Your task to perform on an android device: Clear the cart on target.com. Add macbook to the cart on target.com, then select checkout. Image 0: 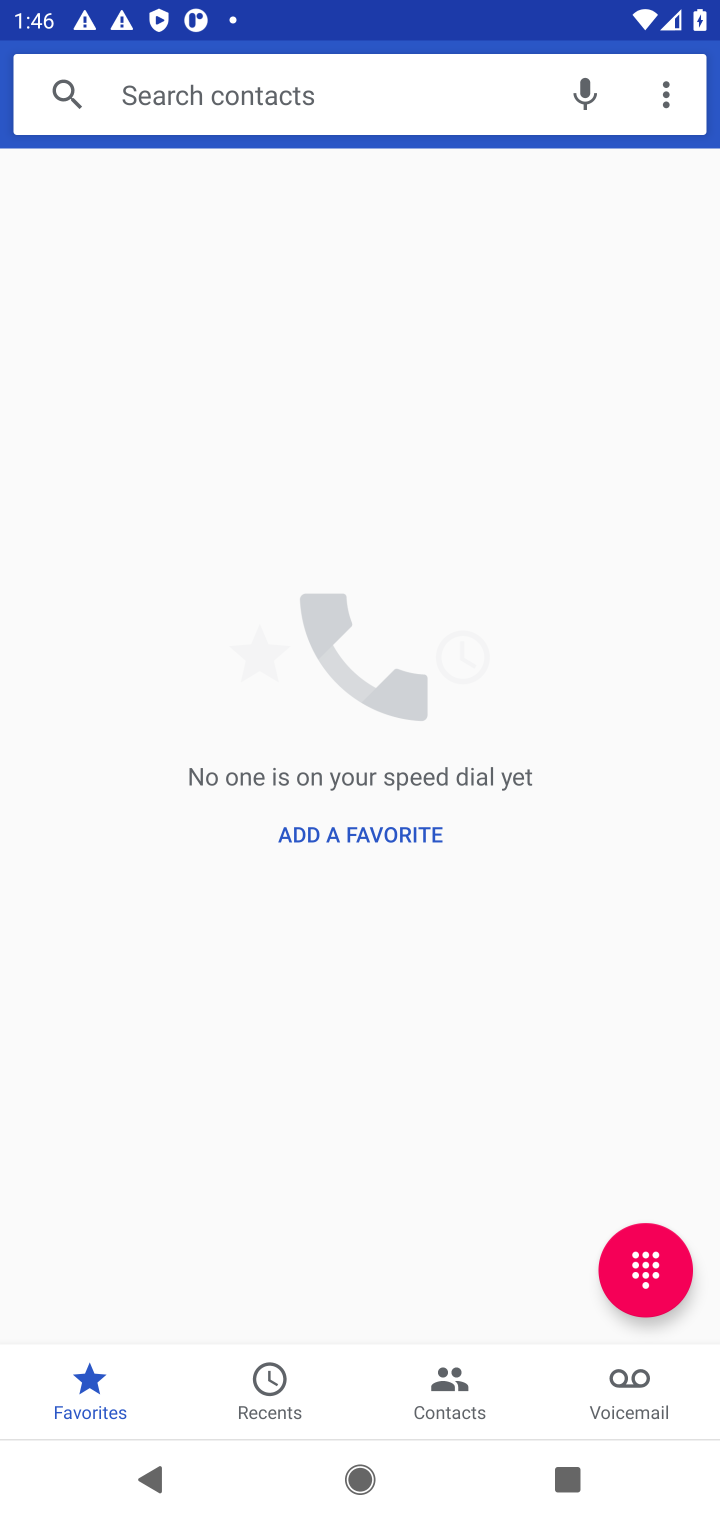
Step 0: press home button
Your task to perform on an android device: Clear the cart on target.com. Add macbook to the cart on target.com, then select checkout. Image 1: 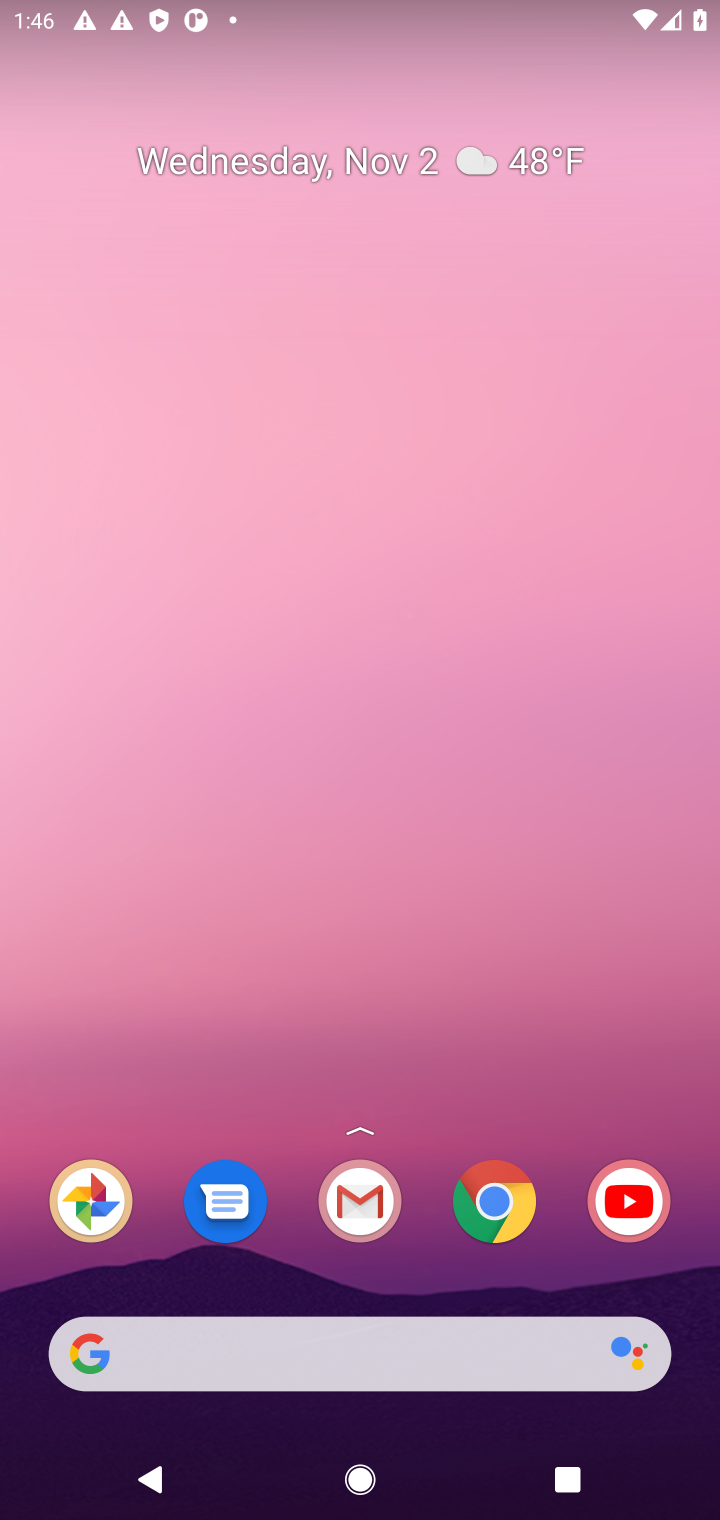
Step 1: click (488, 1207)
Your task to perform on an android device: Clear the cart on target.com. Add macbook to the cart on target.com, then select checkout. Image 2: 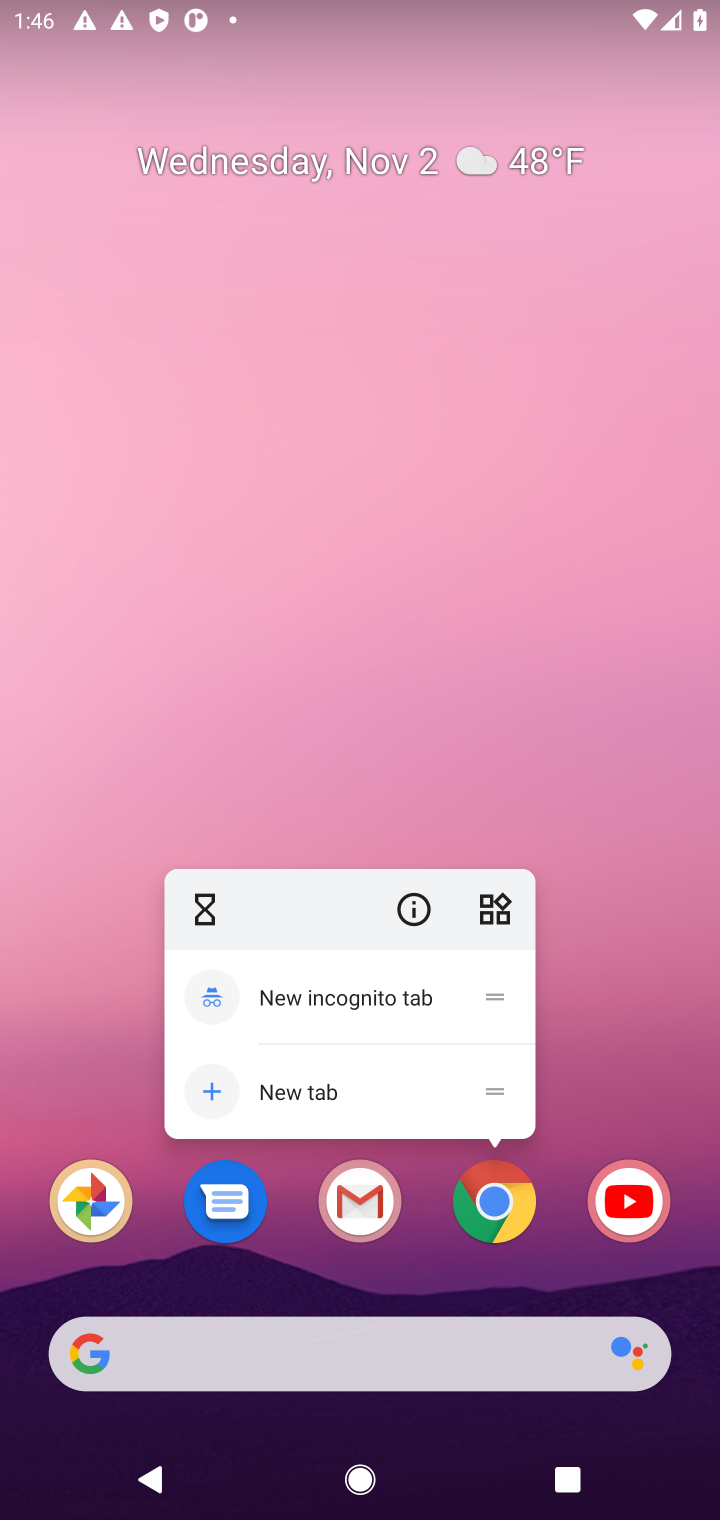
Step 2: click (488, 1207)
Your task to perform on an android device: Clear the cart on target.com. Add macbook to the cart on target.com, then select checkout. Image 3: 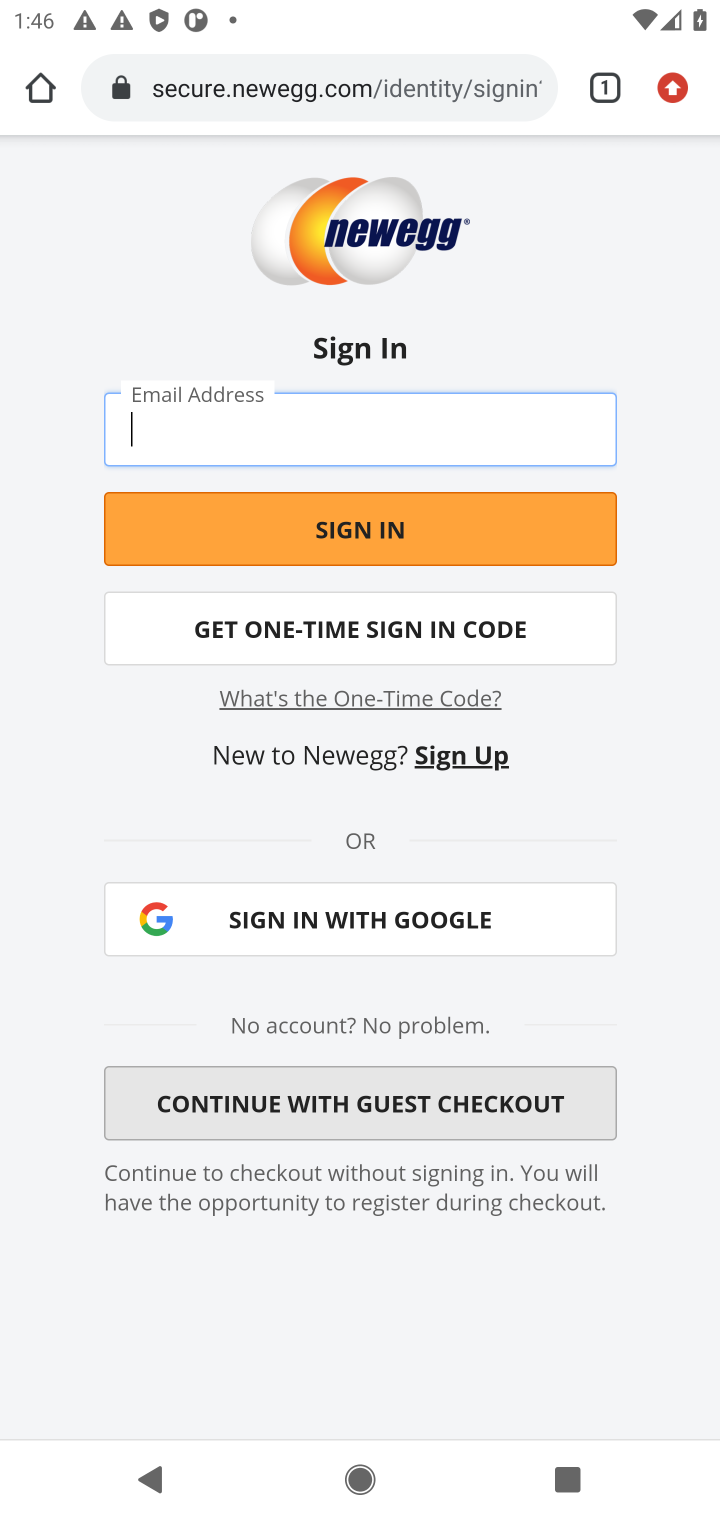
Step 3: click (462, 93)
Your task to perform on an android device: Clear the cart on target.com. Add macbook to the cart on target.com, then select checkout. Image 4: 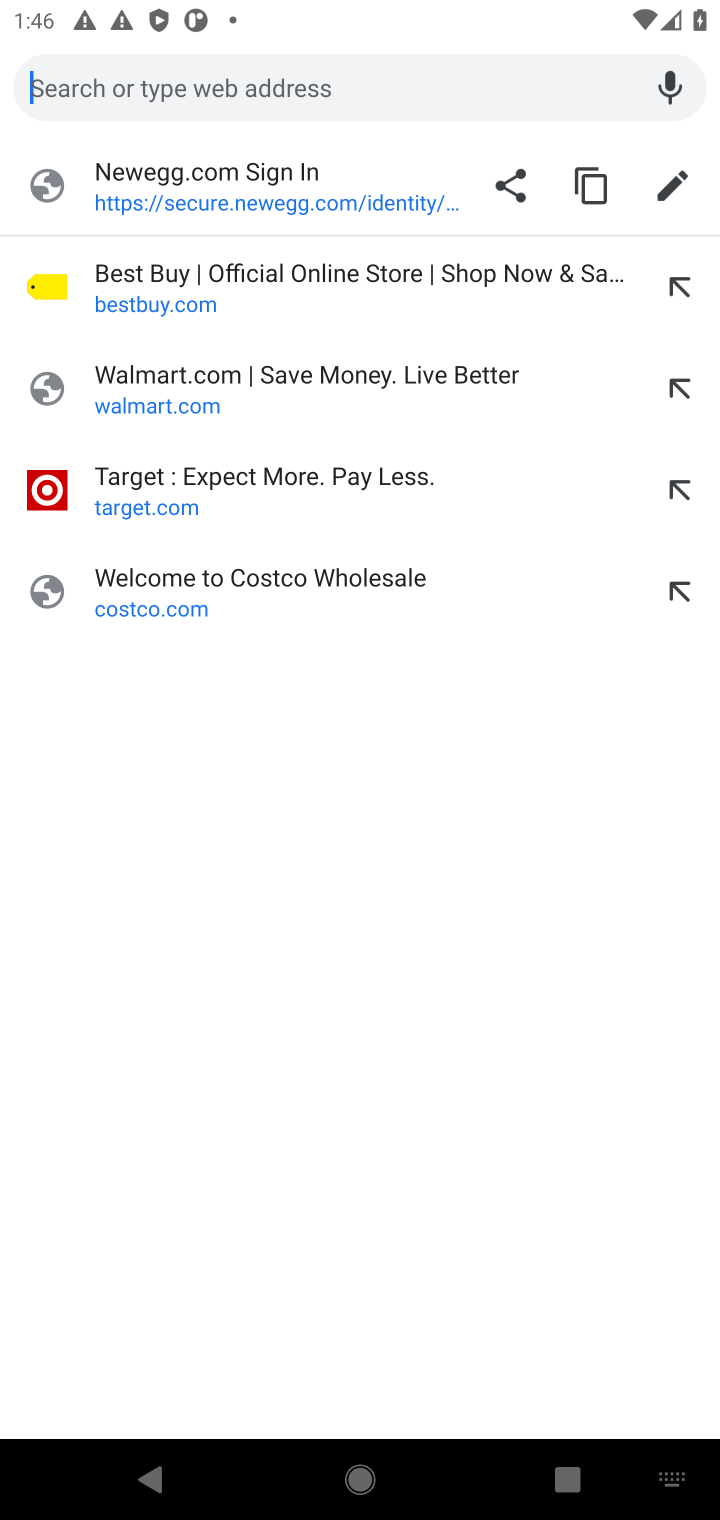
Step 4: click (235, 472)
Your task to perform on an android device: Clear the cart on target.com. Add macbook to the cart on target.com, then select checkout. Image 5: 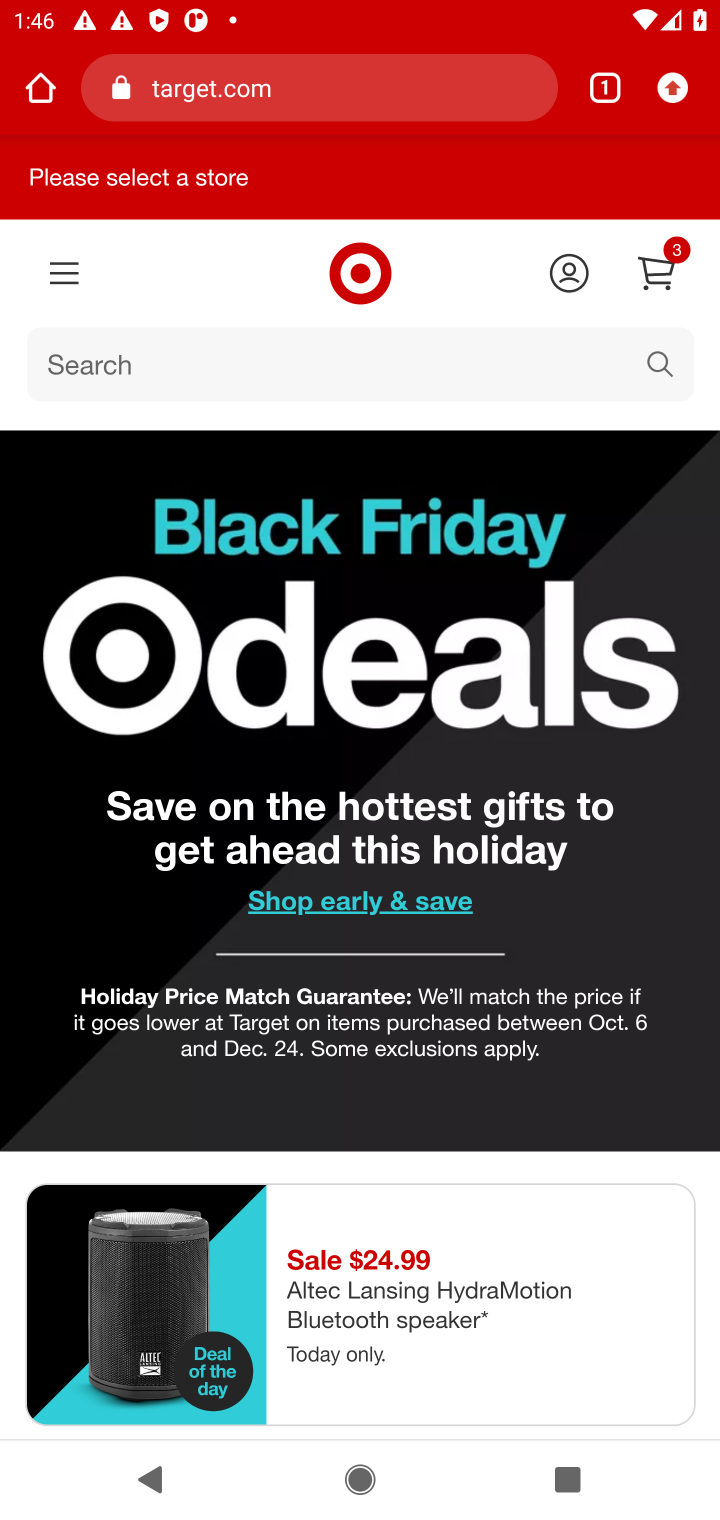
Step 5: click (660, 277)
Your task to perform on an android device: Clear the cart on target.com. Add macbook to the cart on target.com, then select checkout. Image 6: 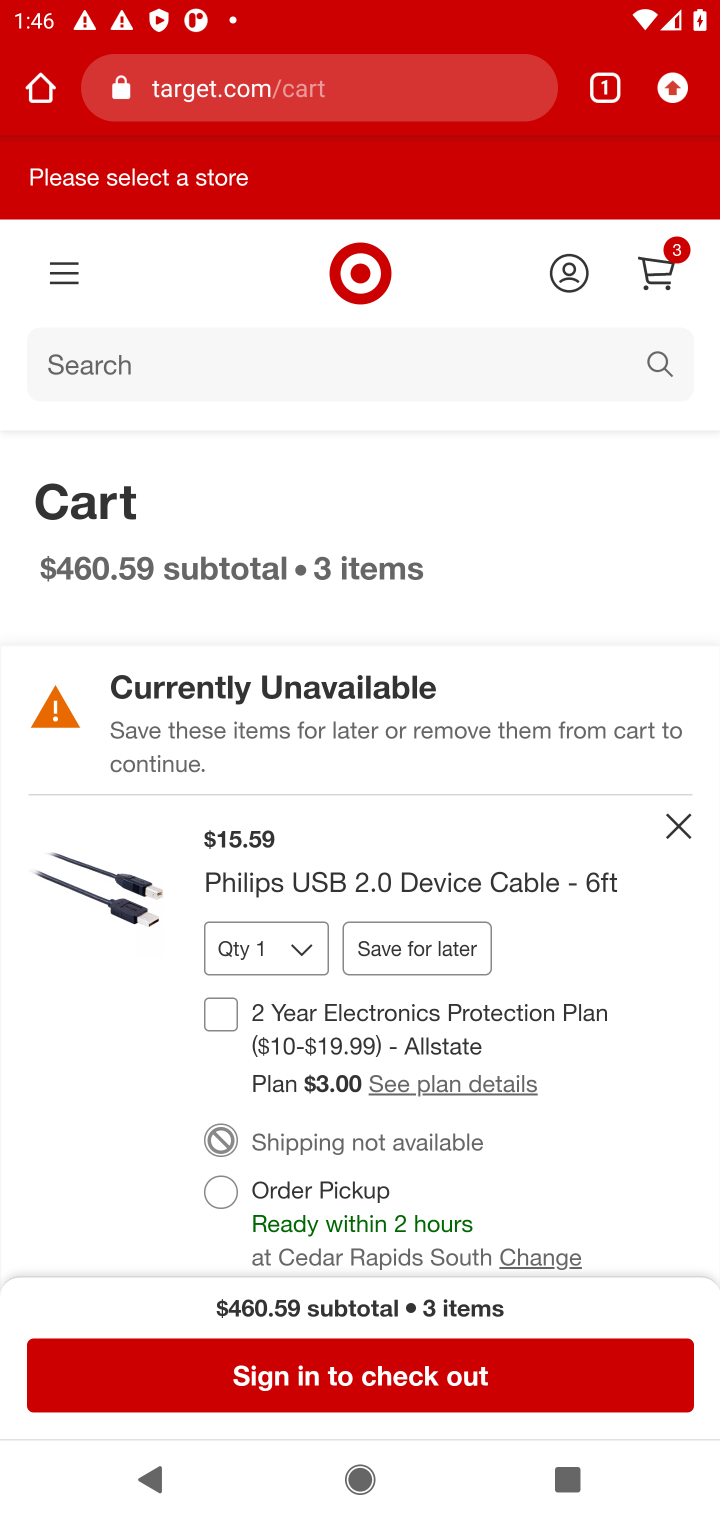
Step 6: click (676, 820)
Your task to perform on an android device: Clear the cart on target.com. Add macbook to the cart on target.com, then select checkout. Image 7: 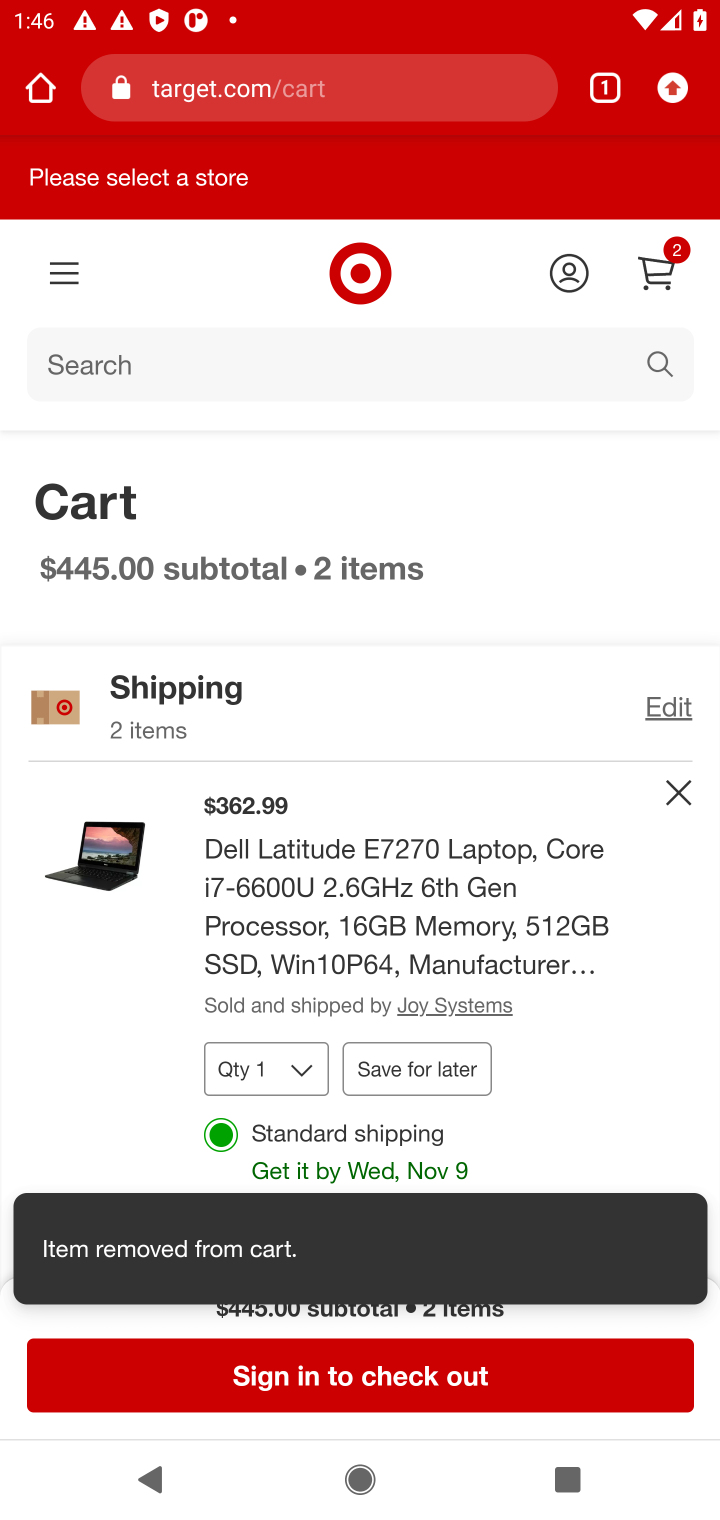
Step 7: click (673, 779)
Your task to perform on an android device: Clear the cart on target.com. Add macbook to the cart on target.com, then select checkout. Image 8: 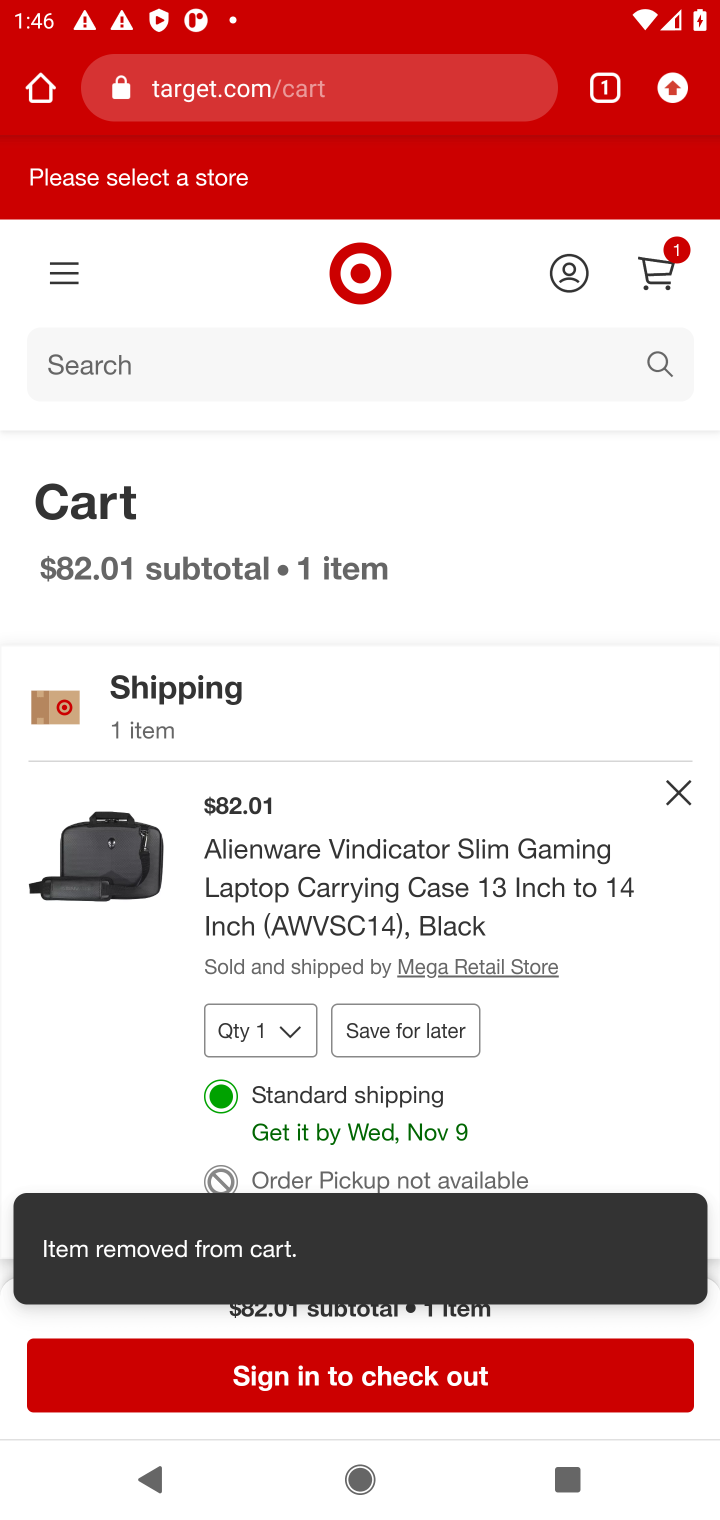
Step 8: click (673, 779)
Your task to perform on an android device: Clear the cart on target.com. Add macbook to the cart on target.com, then select checkout. Image 9: 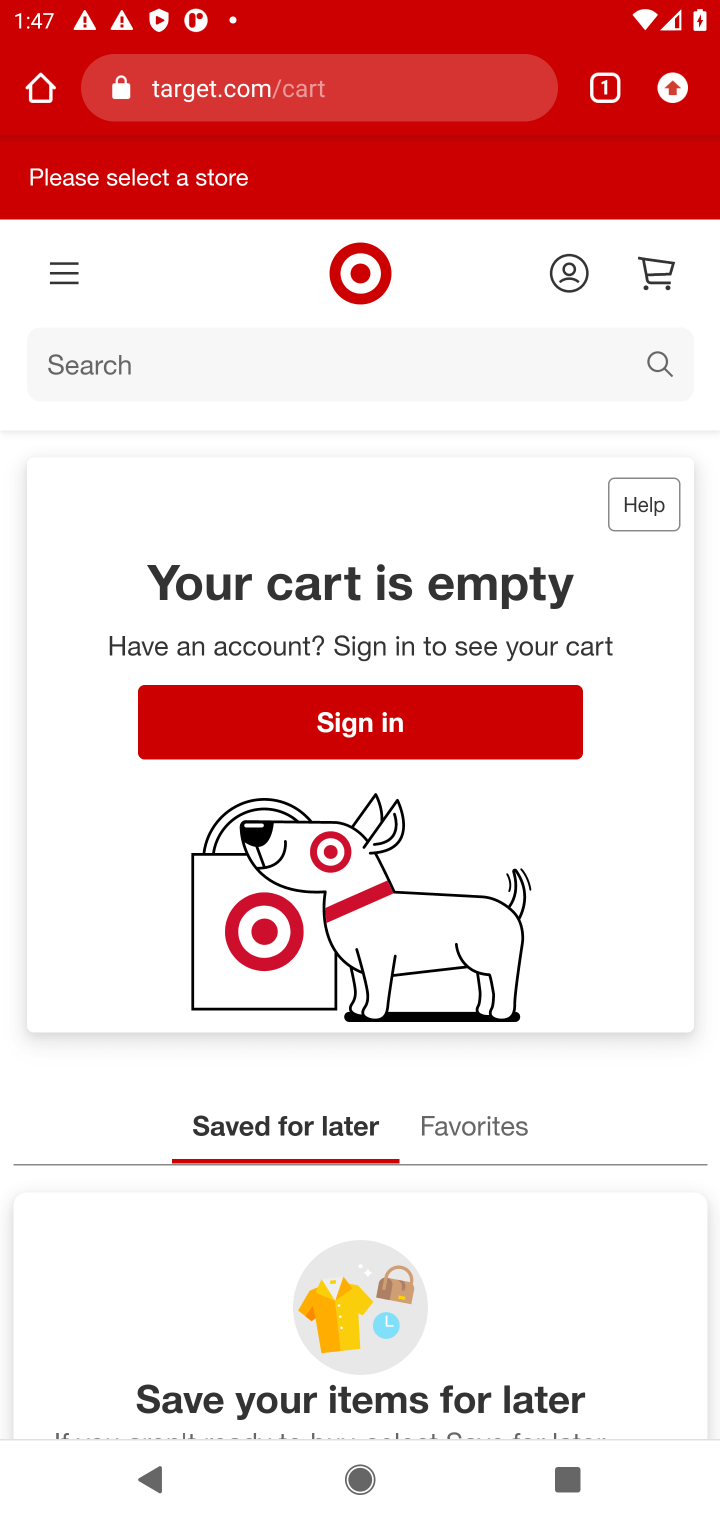
Step 9: click (645, 356)
Your task to perform on an android device: Clear the cart on target.com. Add macbook to the cart on target.com, then select checkout. Image 10: 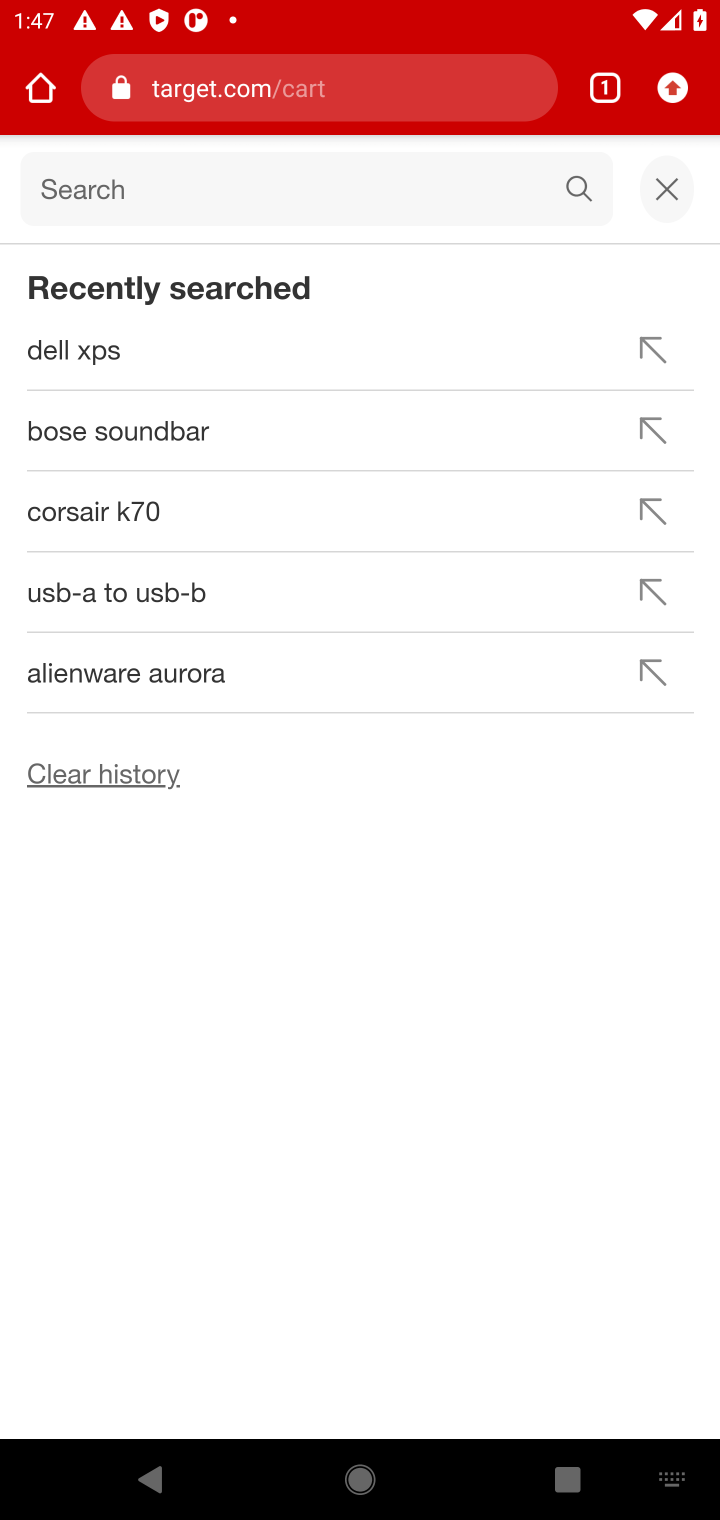
Step 10: type "macbook"
Your task to perform on an android device: Clear the cart on target.com. Add macbook to the cart on target.com, then select checkout. Image 11: 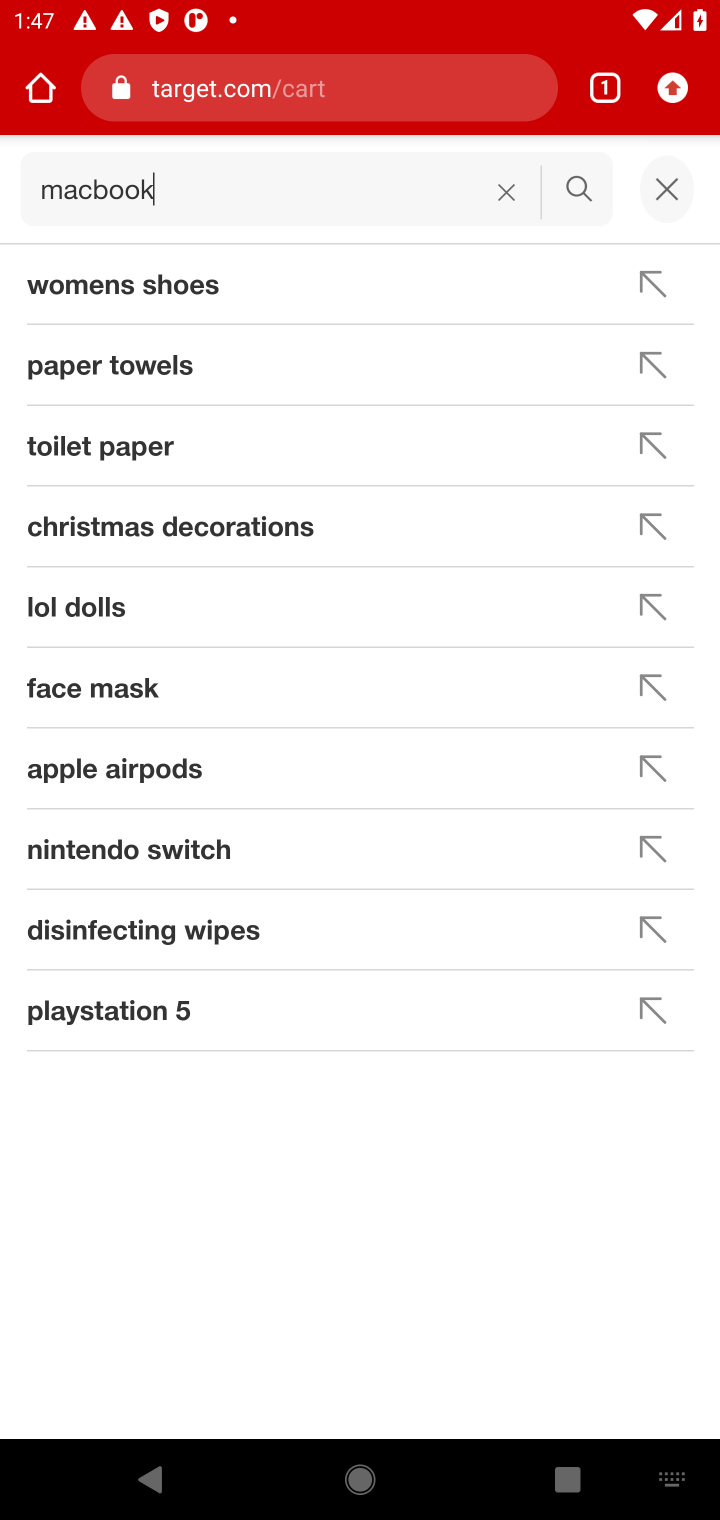
Step 11: press enter
Your task to perform on an android device: Clear the cart on target.com. Add macbook to the cart on target.com, then select checkout. Image 12: 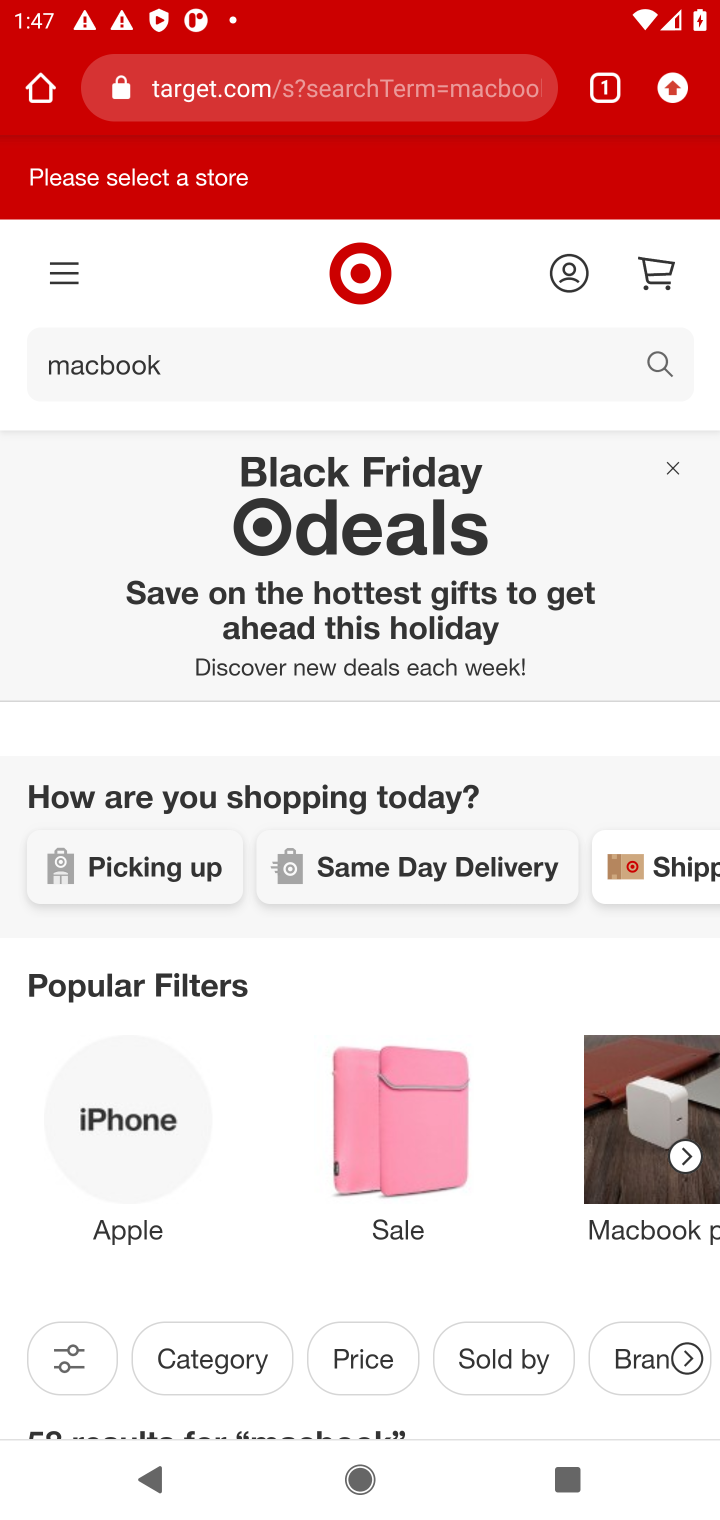
Step 12: drag from (488, 1088) to (544, 673)
Your task to perform on an android device: Clear the cart on target.com. Add macbook to the cart on target.com, then select checkout. Image 13: 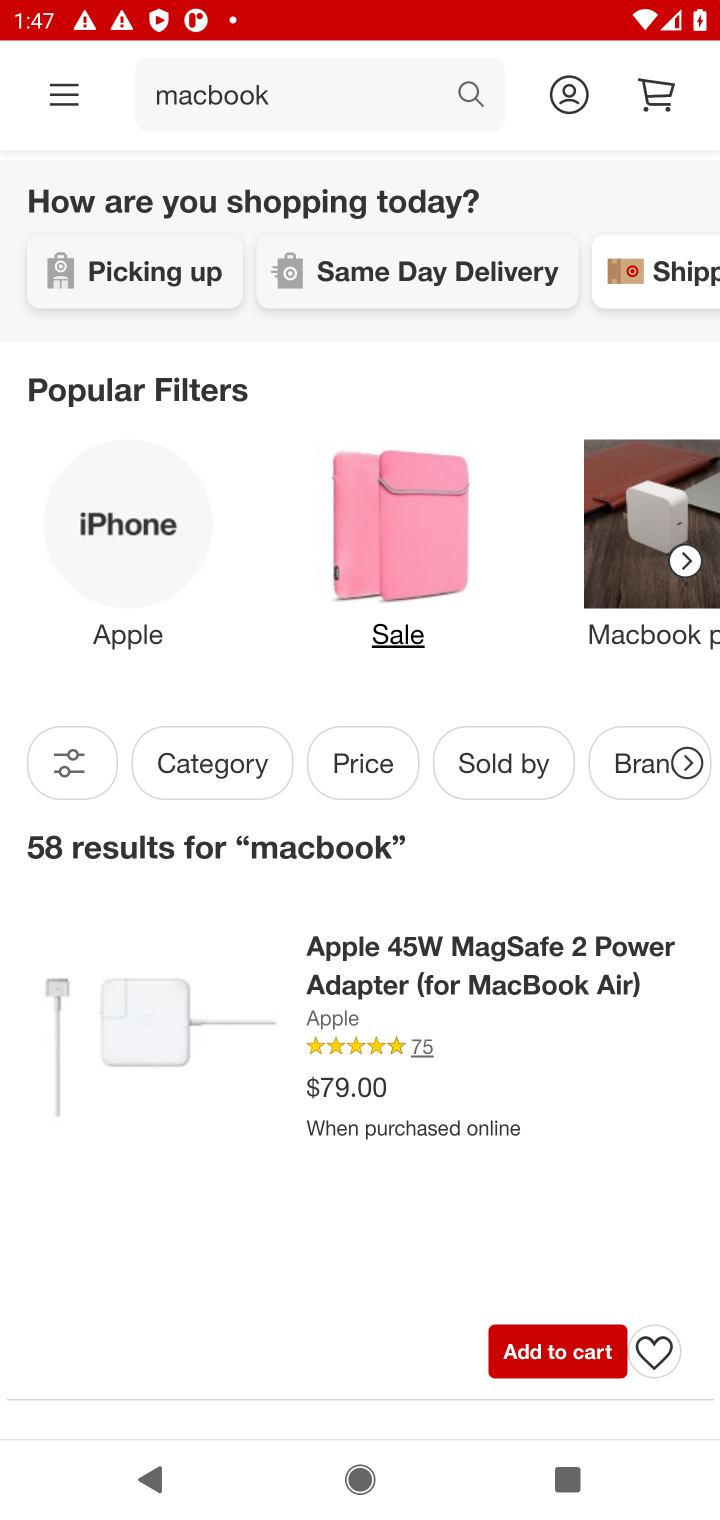
Step 13: click (132, 1009)
Your task to perform on an android device: Clear the cart on target.com. Add macbook to the cart on target.com, then select checkout. Image 14: 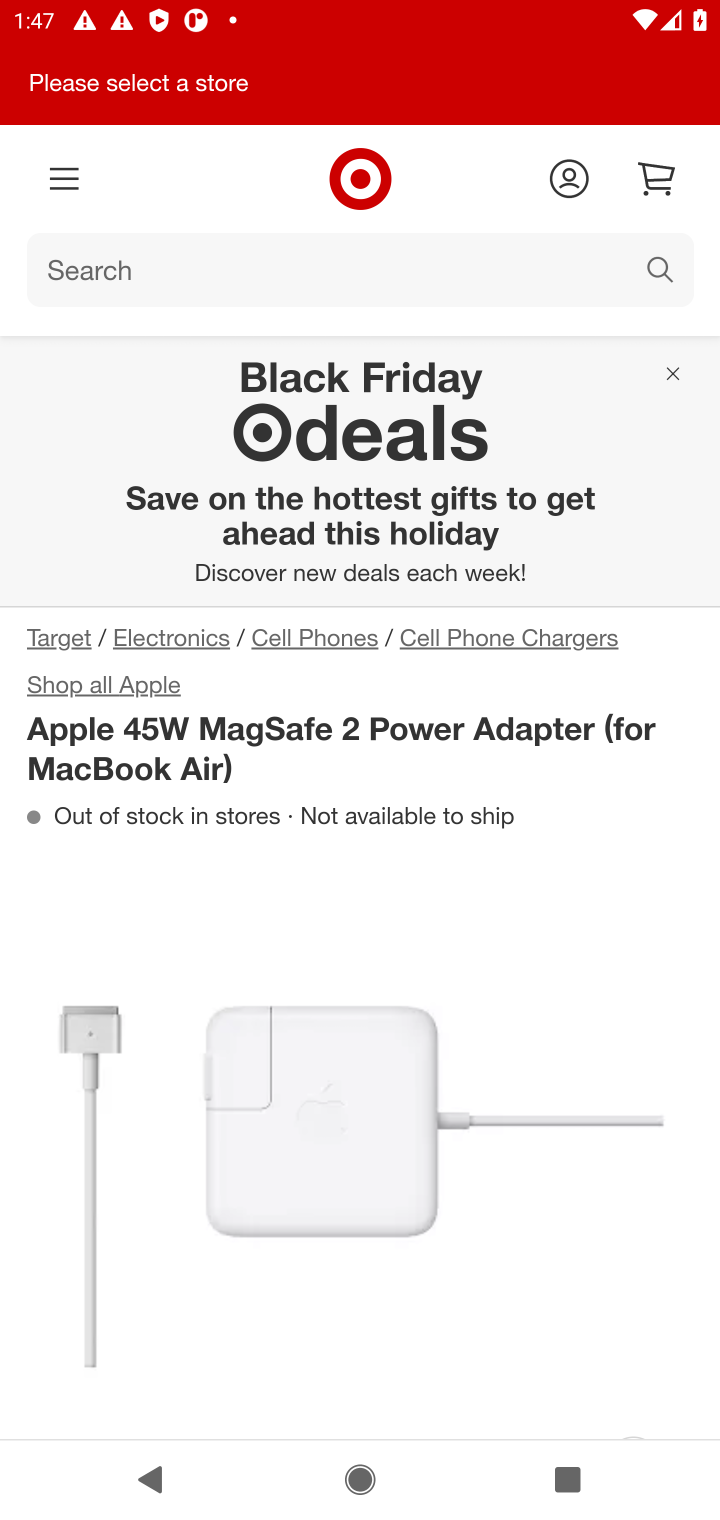
Step 14: drag from (328, 1010) to (480, 604)
Your task to perform on an android device: Clear the cart on target.com. Add macbook to the cart on target.com, then select checkout. Image 15: 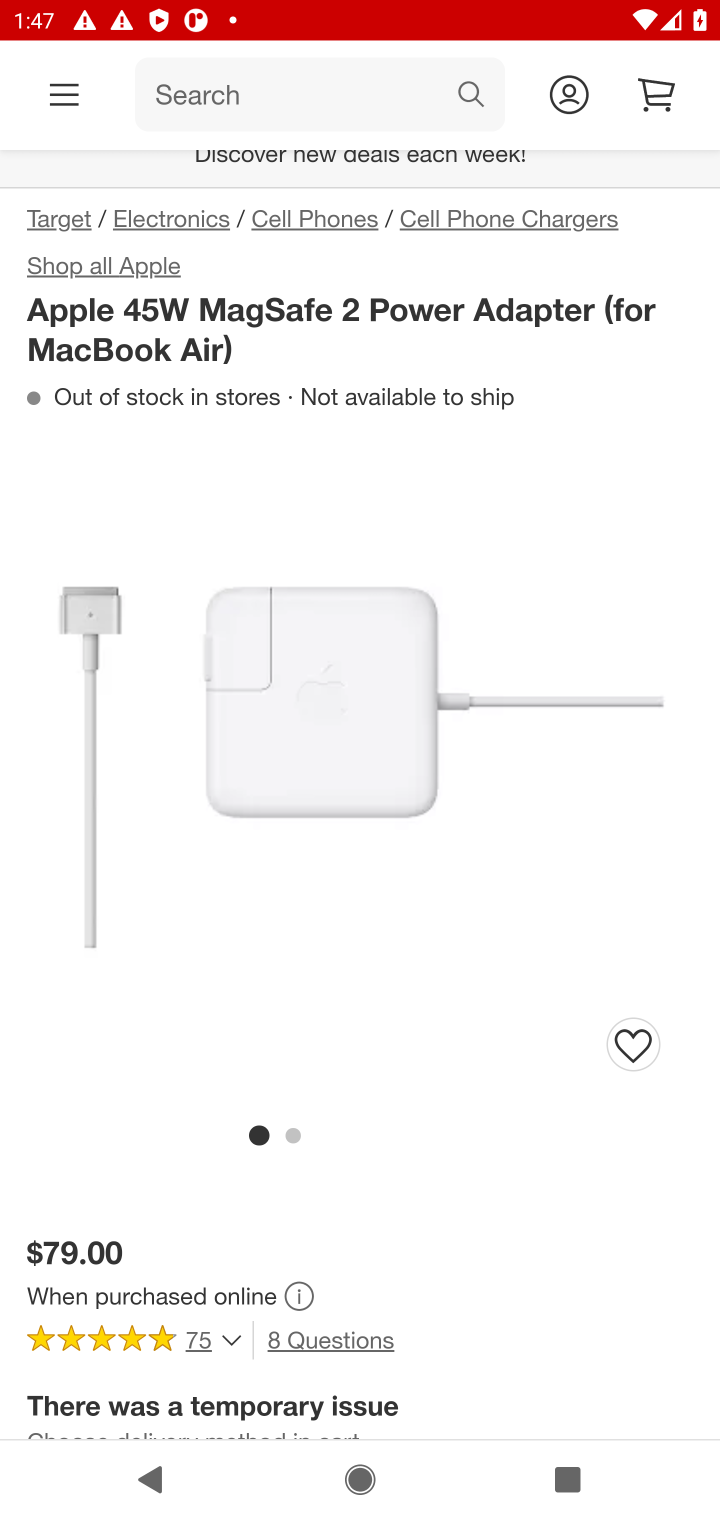
Step 15: drag from (543, 1190) to (544, 749)
Your task to perform on an android device: Clear the cart on target.com. Add macbook to the cart on target.com, then select checkout. Image 16: 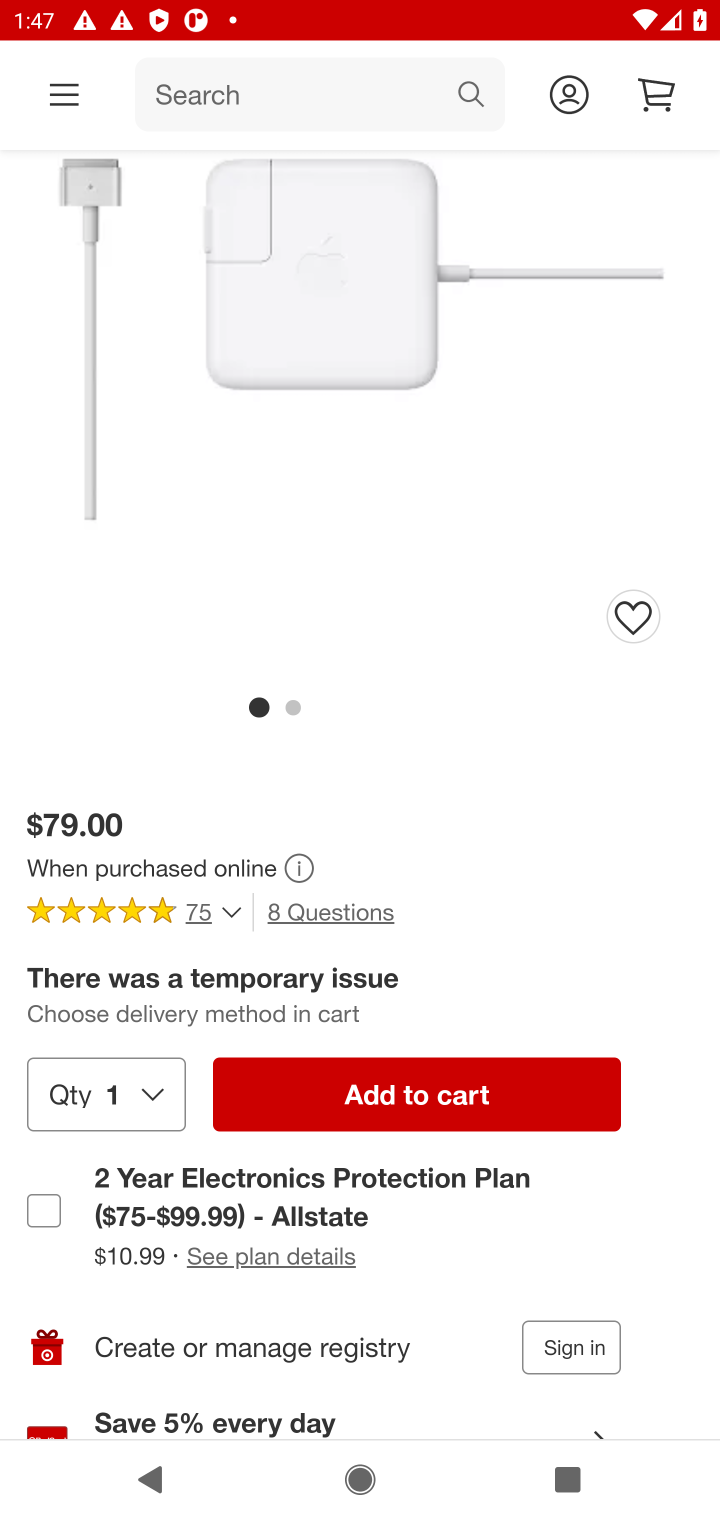
Step 16: click (509, 1084)
Your task to perform on an android device: Clear the cart on target.com. Add macbook to the cart on target.com, then select checkout. Image 17: 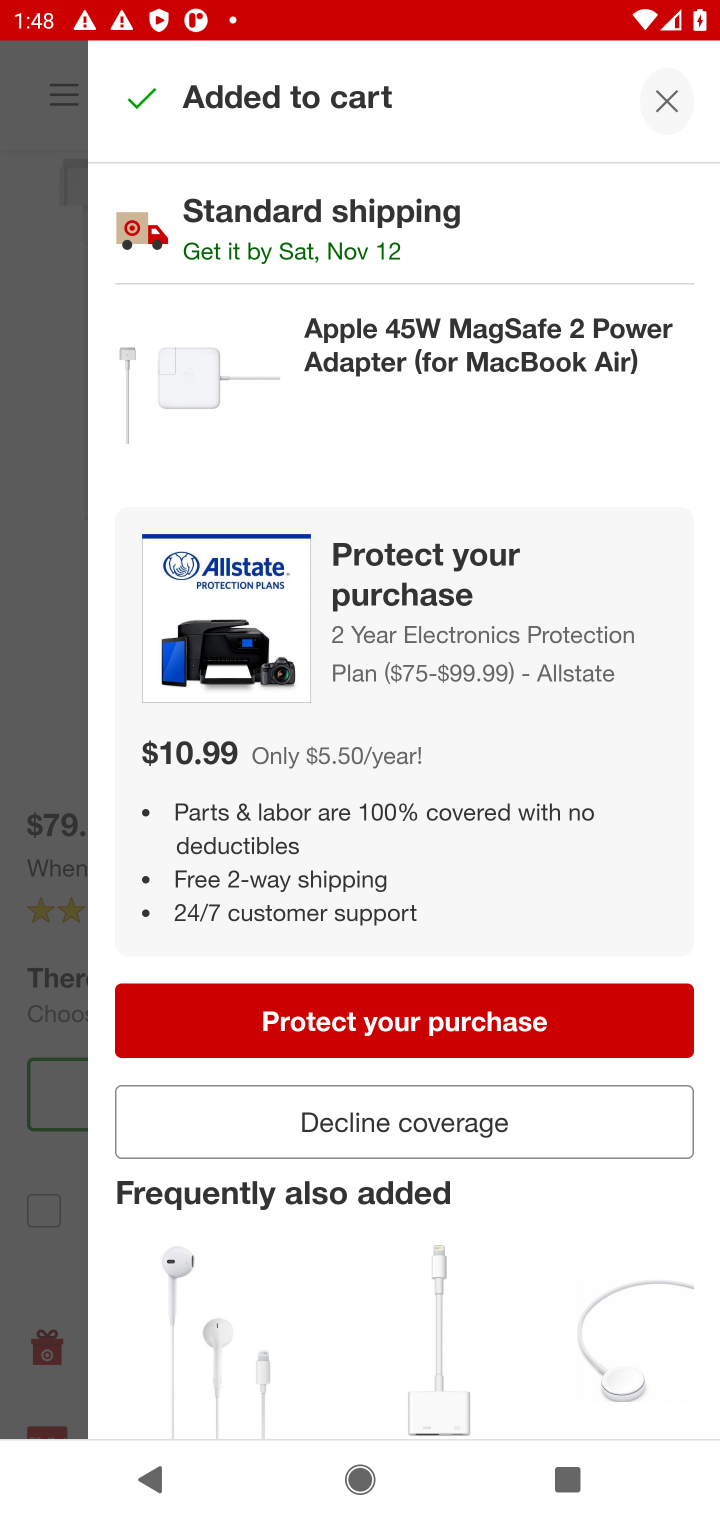
Step 17: click (659, 106)
Your task to perform on an android device: Clear the cart on target.com. Add macbook to the cart on target.com, then select checkout. Image 18: 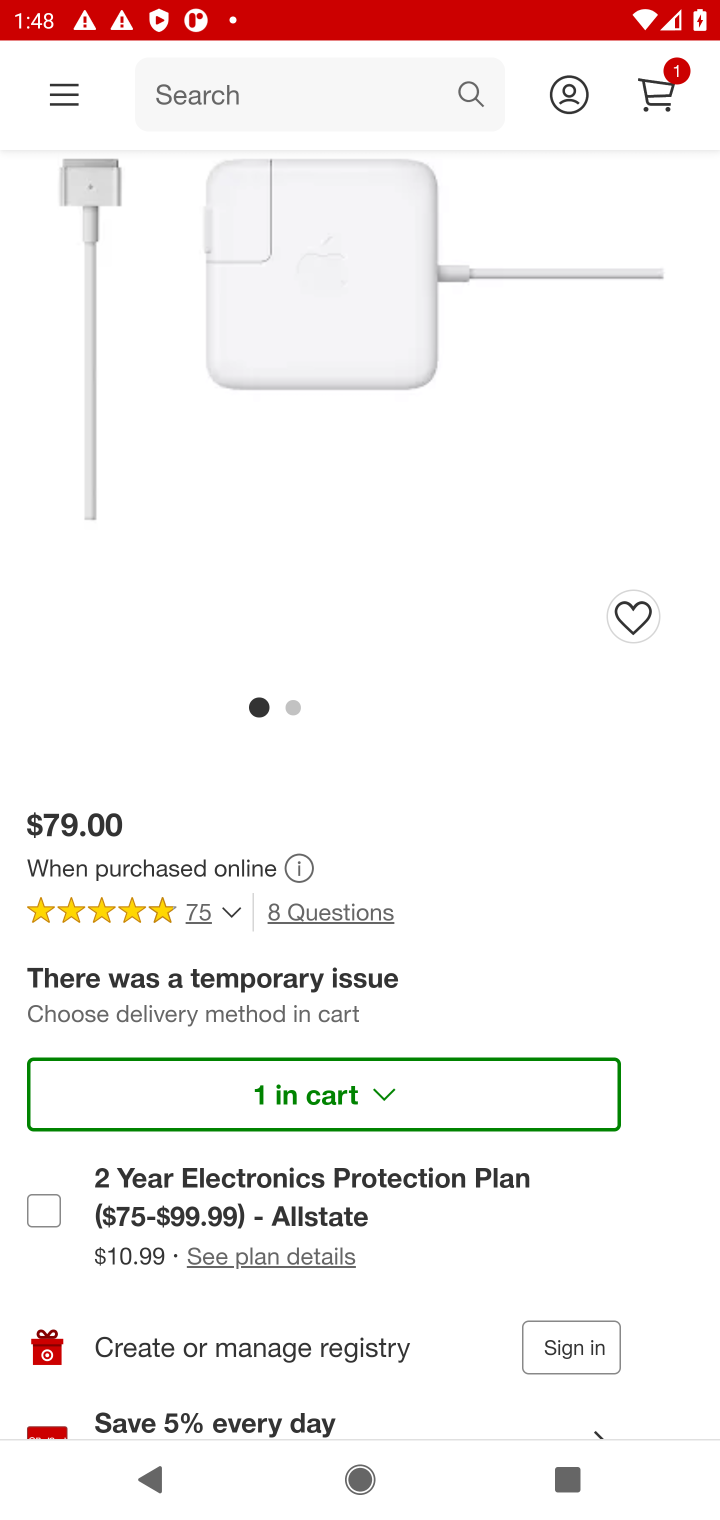
Step 18: click (659, 106)
Your task to perform on an android device: Clear the cart on target.com. Add macbook to the cart on target.com, then select checkout. Image 19: 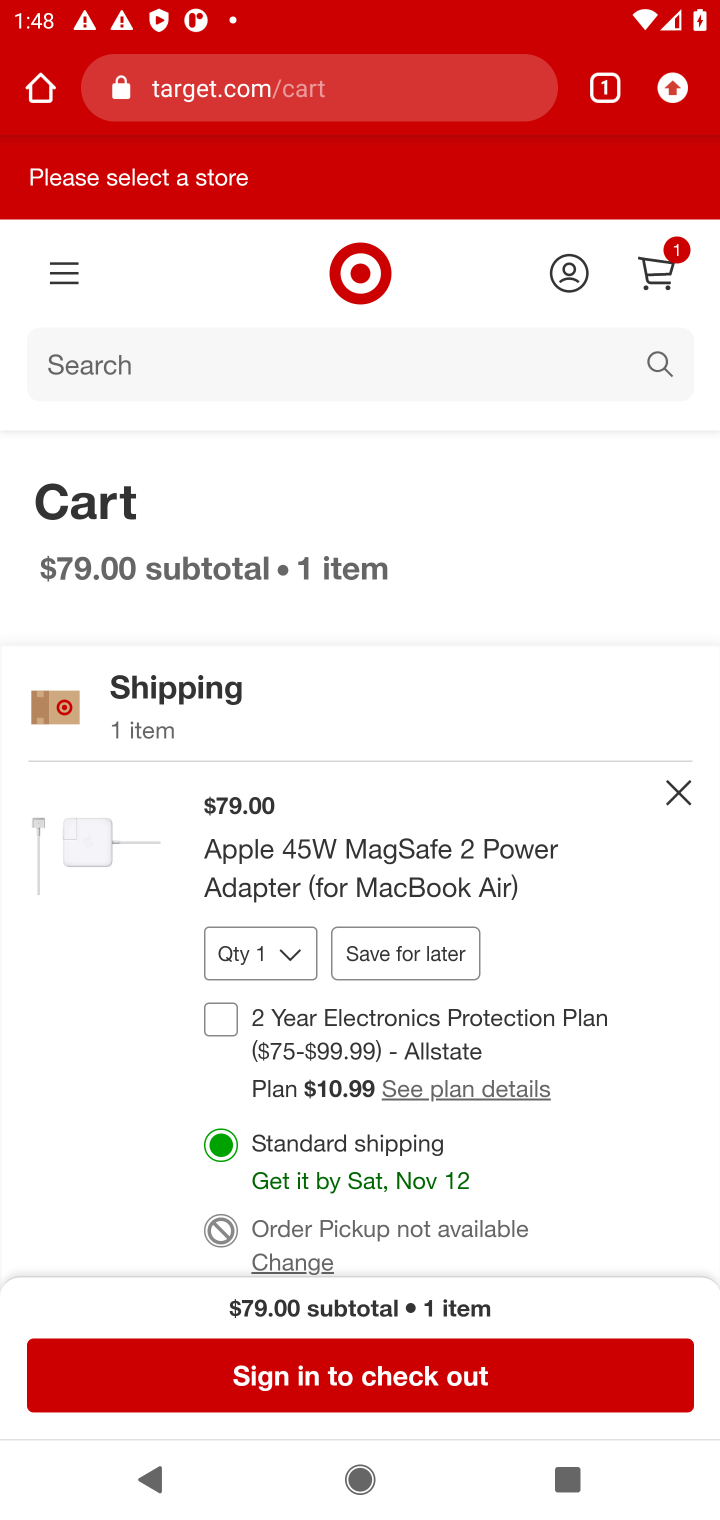
Step 19: click (465, 1366)
Your task to perform on an android device: Clear the cart on target.com. Add macbook to the cart on target.com, then select checkout. Image 20: 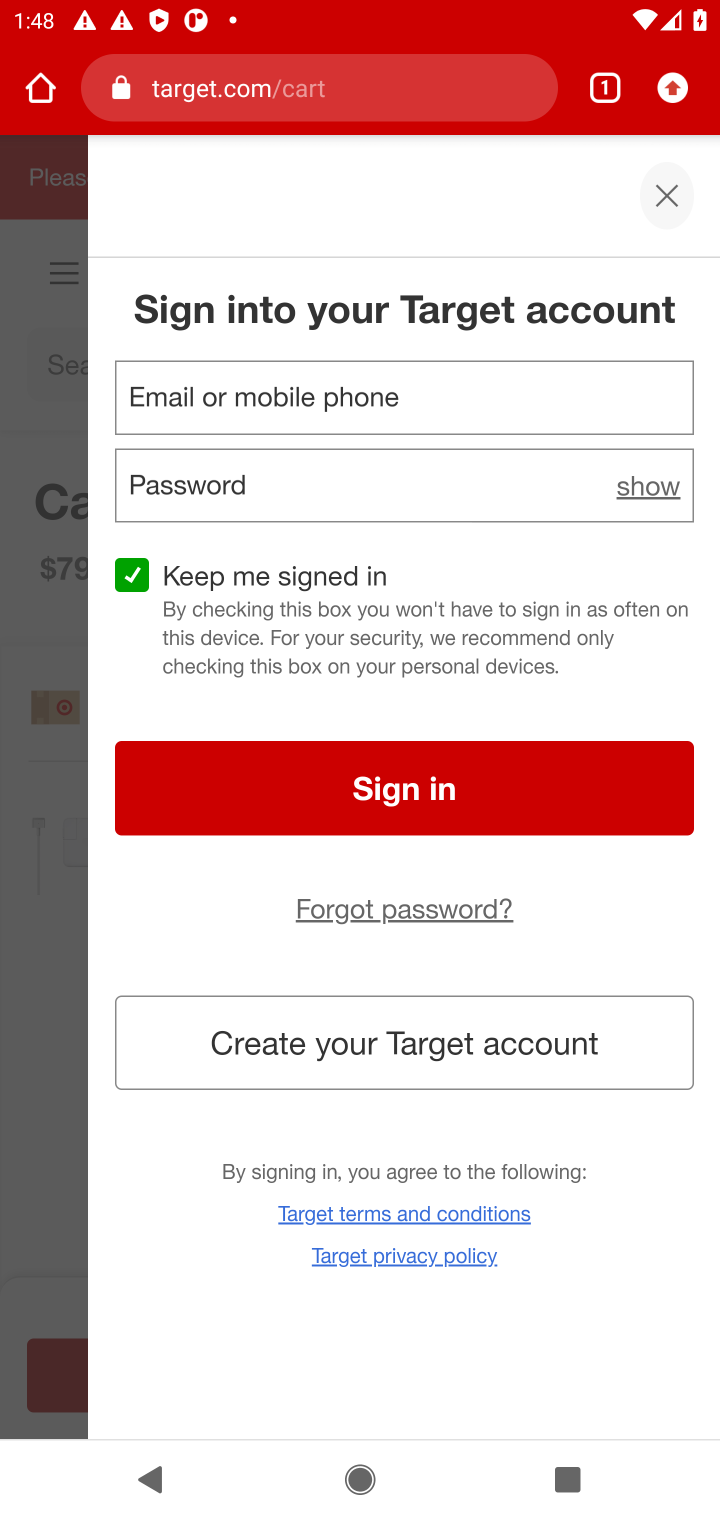
Step 20: task complete